Your task to perform on an android device: Do I have any events today? Image 0: 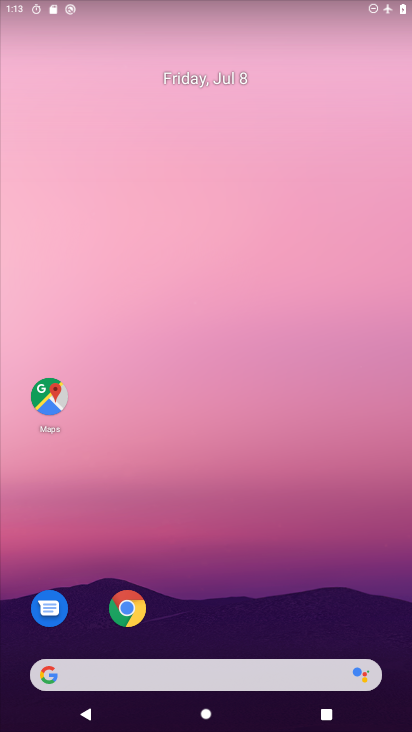
Step 0: drag from (225, 709) to (224, 99)
Your task to perform on an android device: Do I have any events today? Image 1: 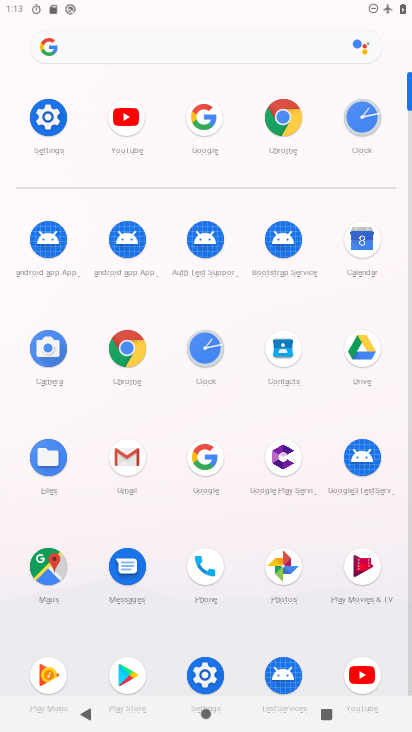
Step 1: click (360, 243)
Your task to perform on an android device: Do I have any events today? Image 2: 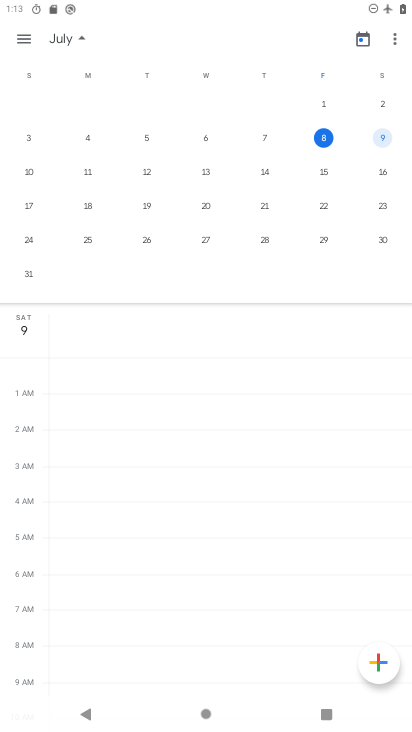
Step 2: click (325, 134)
Your task to perform on an android device: Do I have any events today? Image 3: 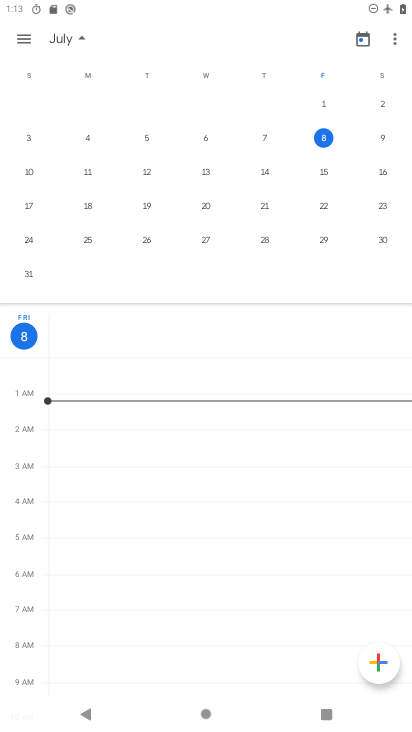
Step 3: click (25, 42)
Your task to perform on an android device: Do I have any events today? Image 4: 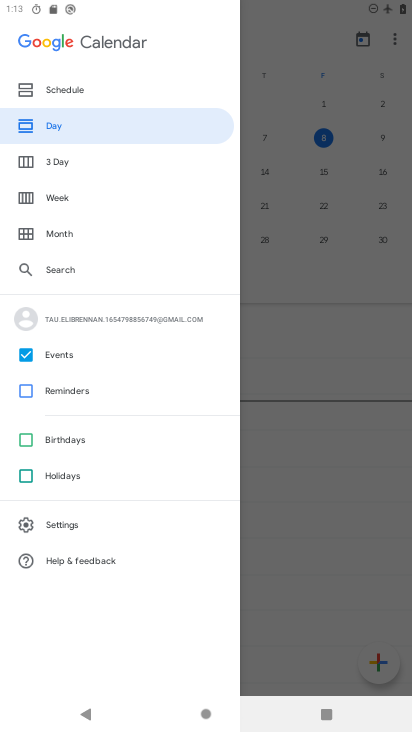
Step 4: click (50, 126)
Your task to perform on an android device: Do I have any events today? Image 5: 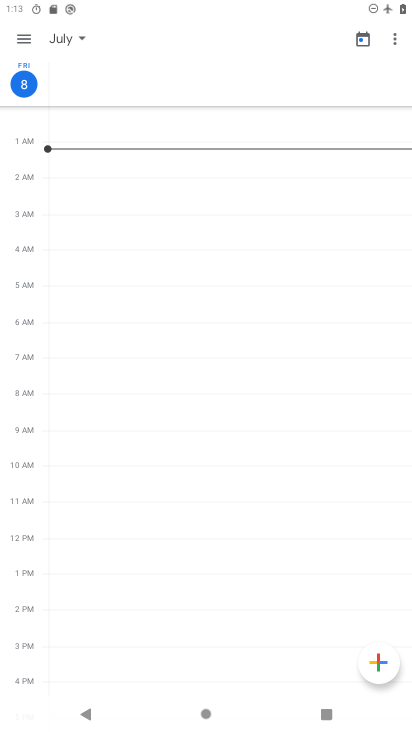
Step 5: task complete